Your task to perform on an android device: turn on translation in the chrome app Image 0: 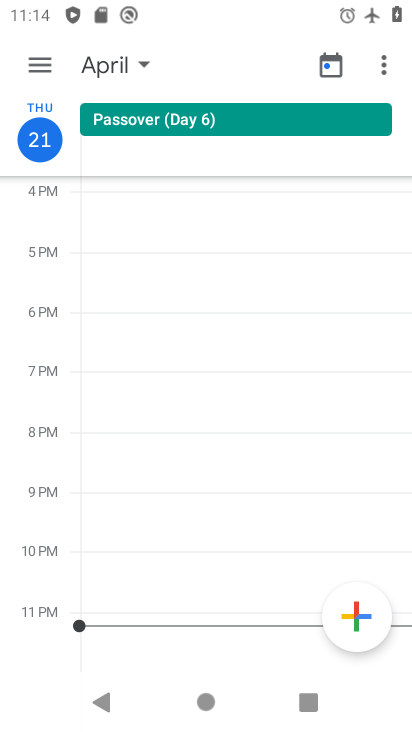
Step 0: click (387, 72)
Your task to perform on an android device: turn on translation in the chrome app Image 1: 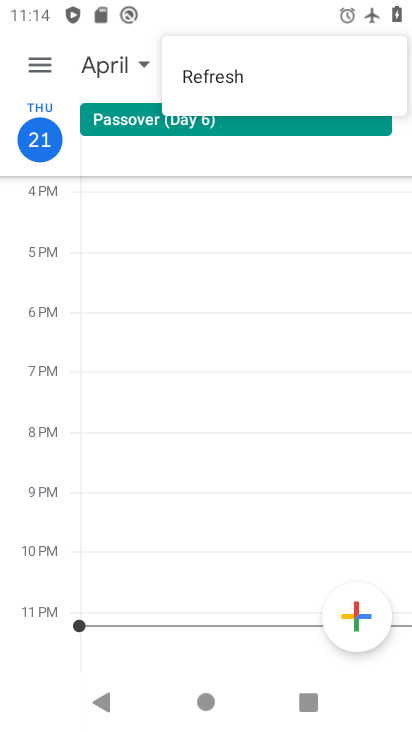
Step 1: click (293, 330)
Your task to perform on an android device: turn on translation in the chrome app Image 2: 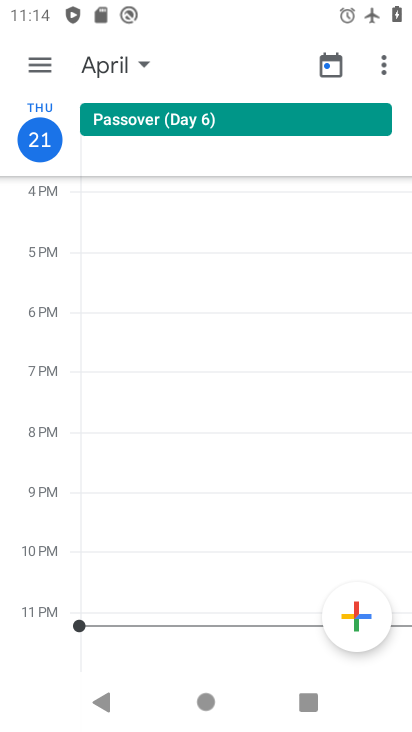
Step 2: click (385, 76)
Your task to perform on an android device: turn on translation in the chrome app Image 3: 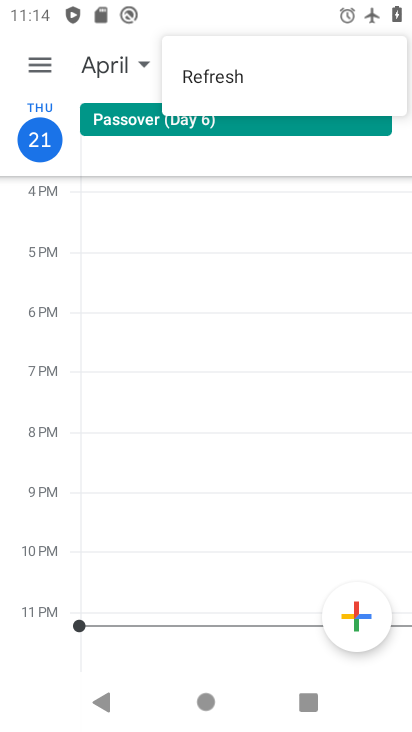
Step 3: click (265, 373)
Your task to perform on an android device: turn on translation in the chrome app Image 4: 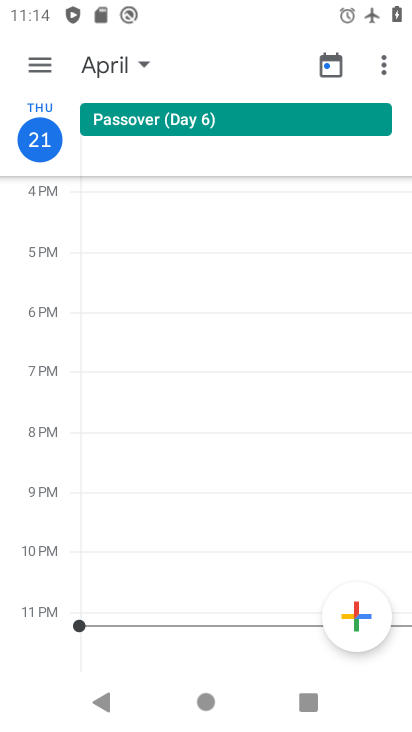
Step 4: press home button
Your task to perform on an android device: turn on translation in the chrome app Image 5: 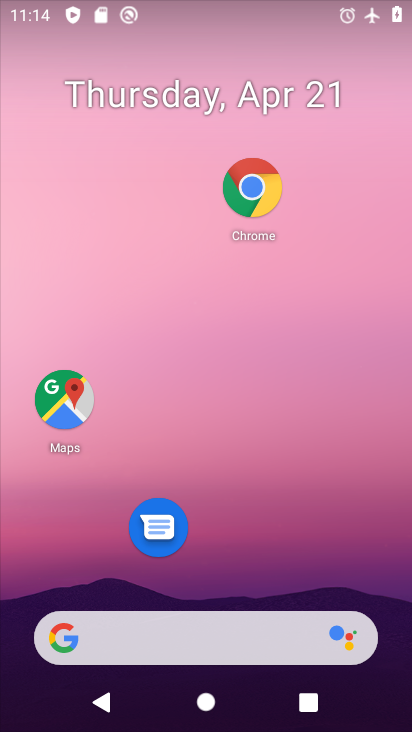
Step 5: click (254, 212)
Your task to perform on an android device: turn on translation in the chrome app Image 6: 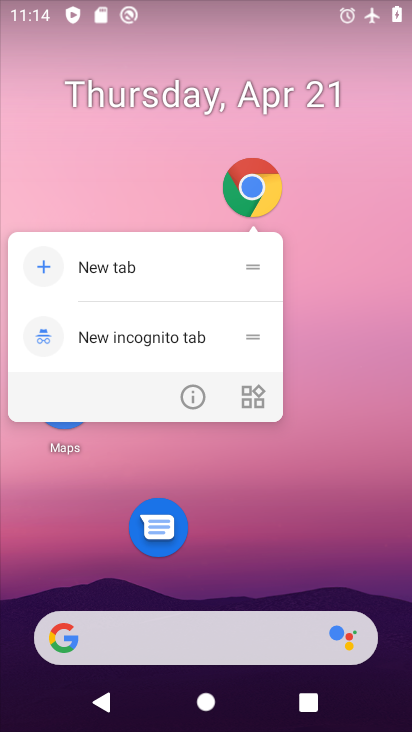
Step 6: click (254, 213)
Your task to perform on an android device: turn on translation in the chrome app Image 7: 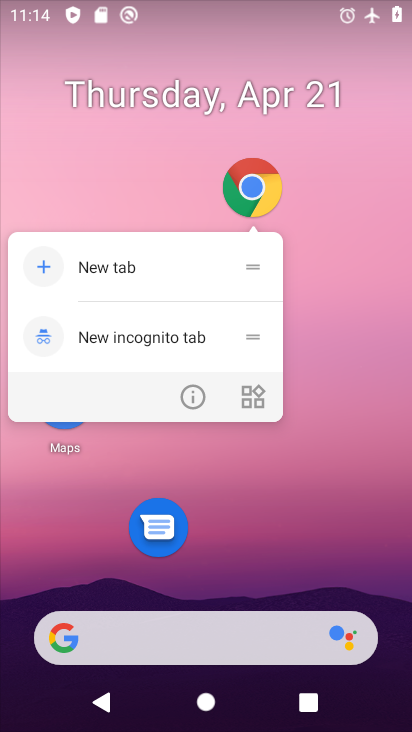
Step 7: click (255, 213)
Your task to perform on an android device: turn on translation in the chrome app Image 8: 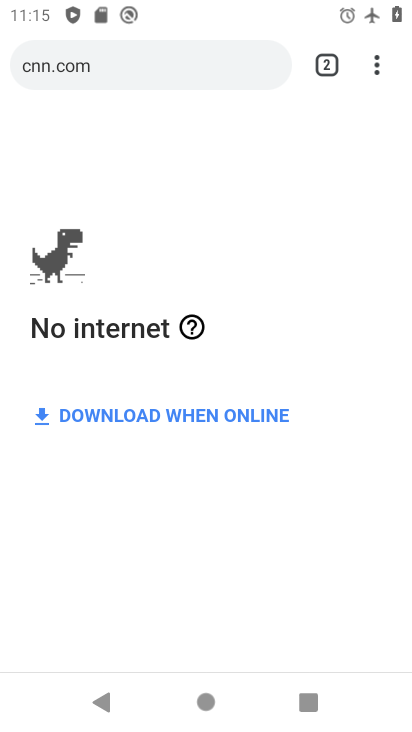
Step 8: click (379, 69)
Your task to perform on an android device: turn on translation in the chrome app Image 9: 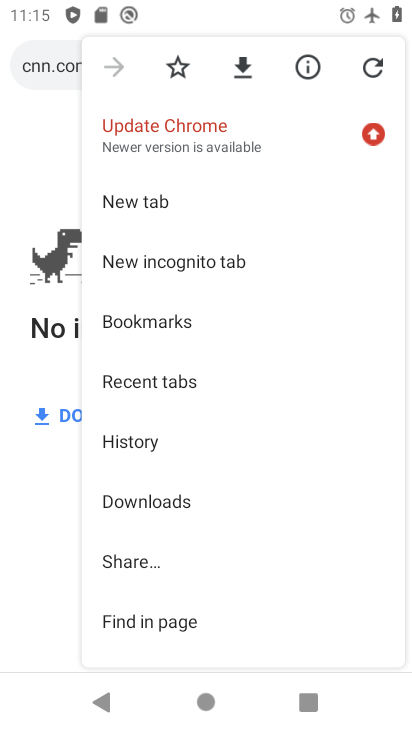
Step 9: drag from (227, 570) to (298, 158)
Your task to perform on an android device: turn on translation in the chrome app Image 10: 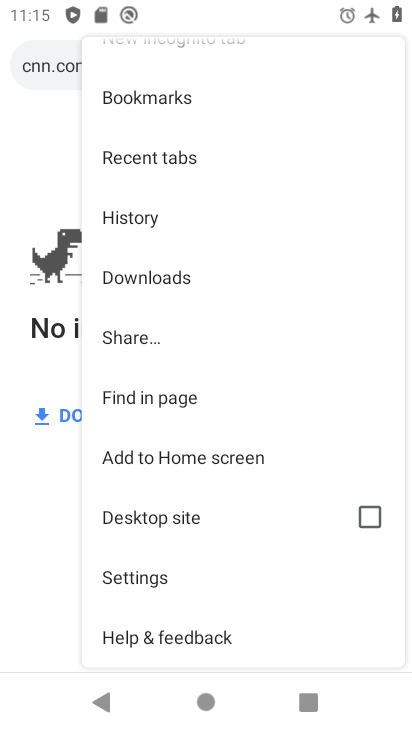
Step 10: click (221, 578)
Your task to perform on an android device: turn on translation in the chrome app Image 11: 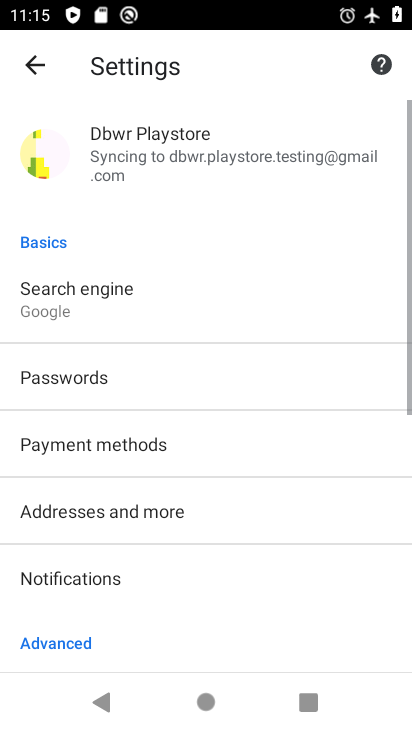
Step 11: task complete